Your task to perform on an android device: open chrome privacy settings Image 0: 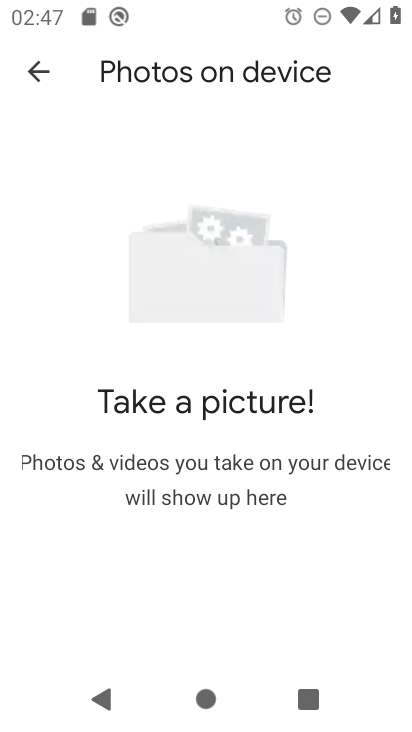
Step 0: press home button
Your task to perform on an android device: open chrome privacy settings Image 1: 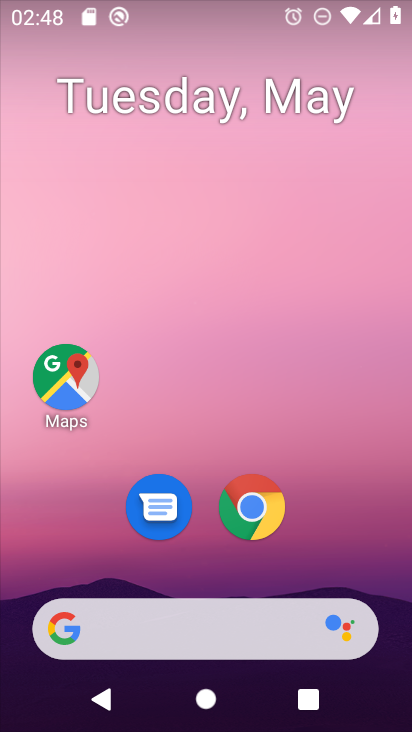
Step 1: click (251, 514)
Your task to perform on an android device: open chrome privacy settings Image 2: 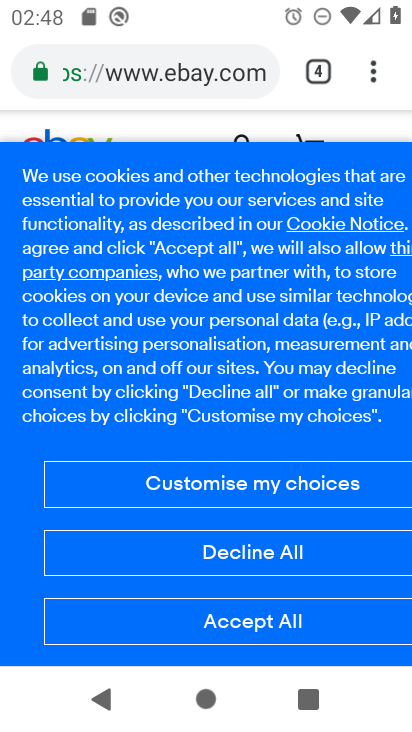
Step 2: drag from (368, 67) to (184, 507)
Your task to perform on an android device: open chrome privacy settings Image 3: 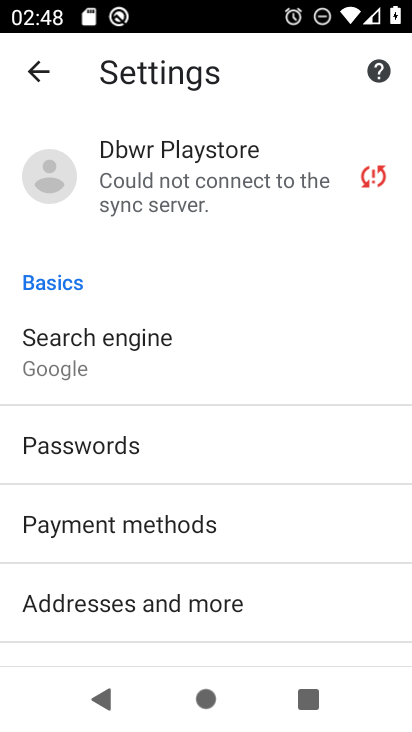
Step 3: drag from (174, 595) to (191, 341)
Your task to perform on an android device: open chrome privacy settings Image 4: 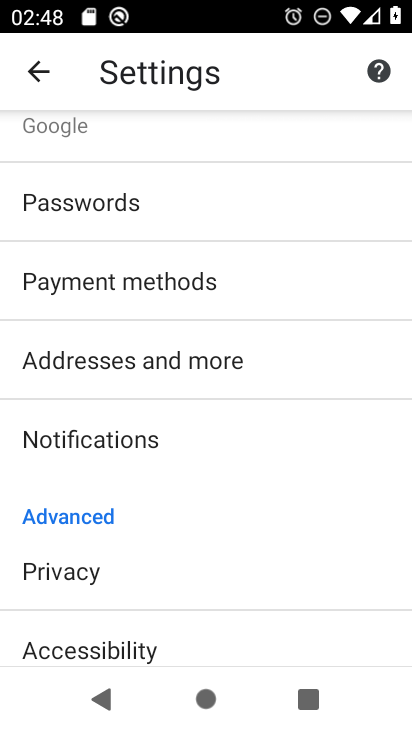
Step 4: click (145, 562)
Your task to perform on an android device: open chrome privacy settings Image 5: 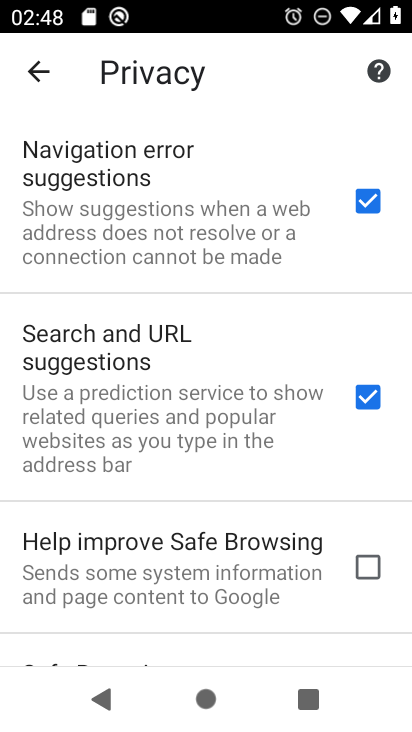
Step 5: task complete